Your task to perform on an android device: What's on my calendar tomorrow? Image 0: 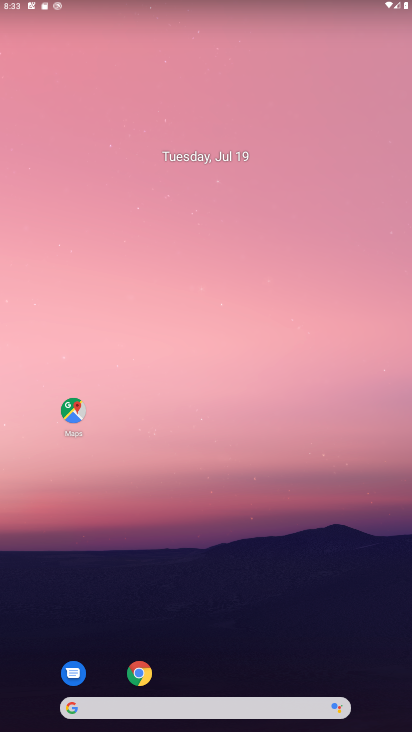
Step 0: drag from (393, 658) to (335, 89)
Your task to perform on an android device: What's on my calendar tomorrow? Image 1: 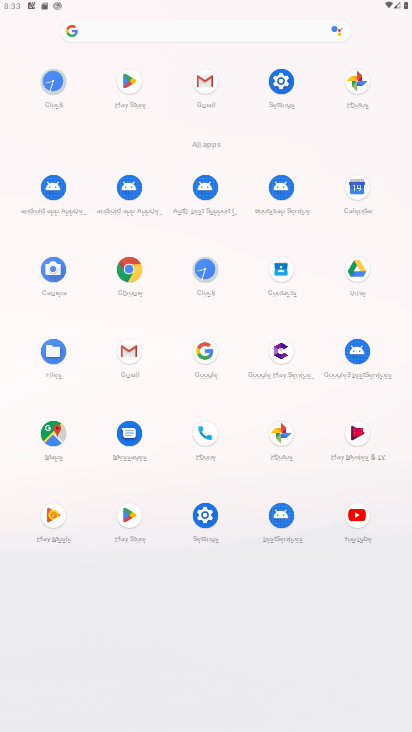
Step 1: click (356, 187)
Your task to perform on an android device: What's on my calendar tomorrow? Image 2: 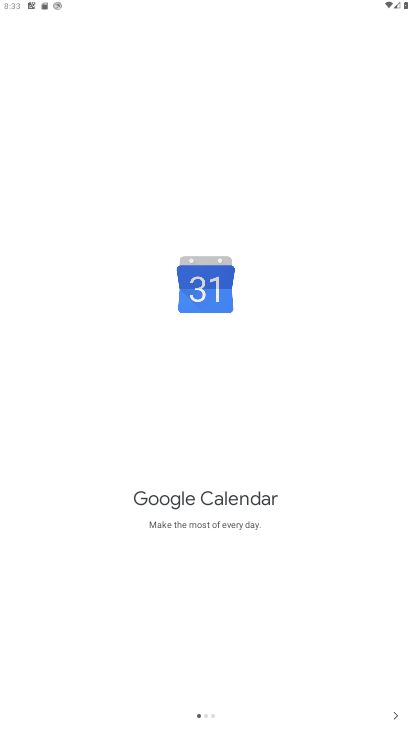
Step 2: click (394, 717)
Your task to perform on an android device: What's on my calendar tomorrow? Image 3: 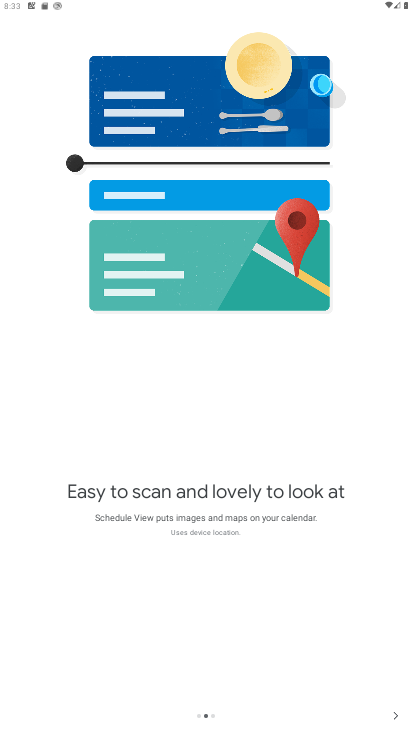
Step 3: click (394, 717)
Your task to perform on an android device: What's on my calendar tomorrow? Image 4: 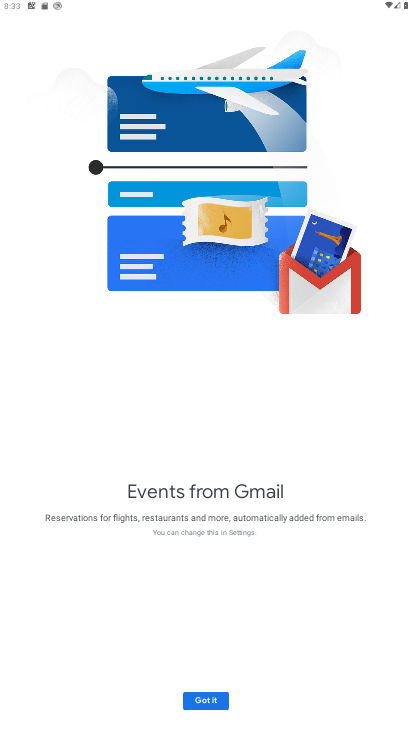
Step 4: click (201, 699)
Your task to perform on an android device: What's on my calendar tomorrow? Image 5: 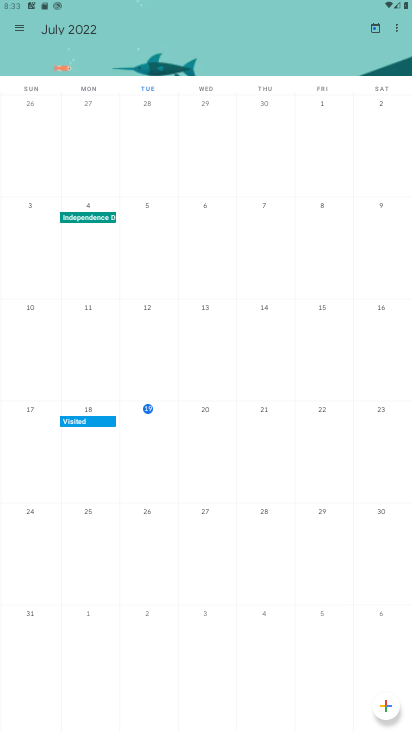
Step 5: click (19, 29)
Your task to perform on an android device: What's on my calendar tomorrow? Image 6: 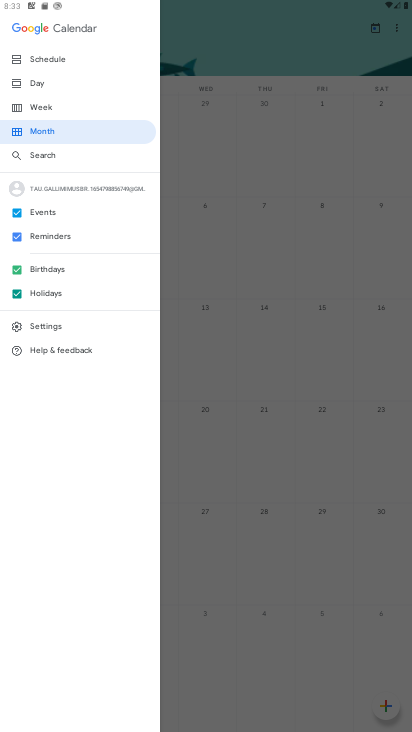
Step 6: click (39, 80)
Your task to perform on an android device: What's on my calendar tomorrow? Image 7: 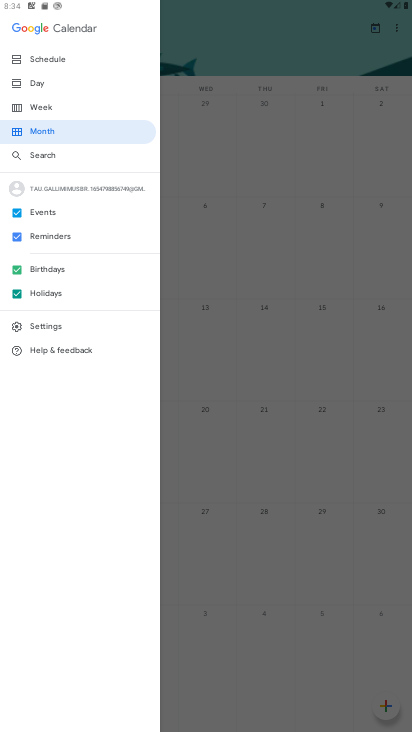
Step 7: click (39, 84)
Your task to perform on an android device: What's on my calendar tomorrow? Image 8: 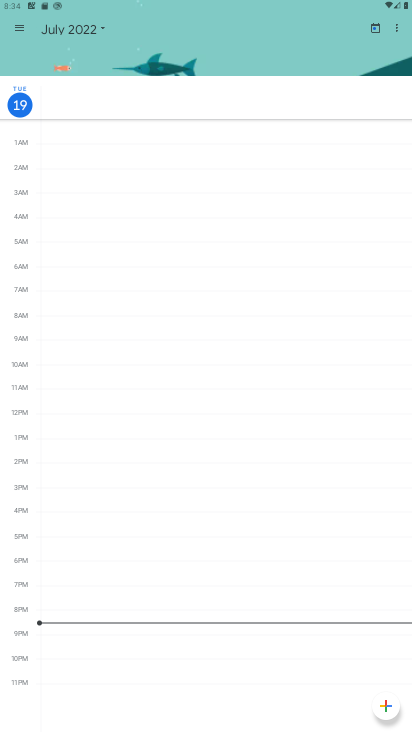
Step 8: click (98, 25)
Your task to perform on an android device: What's on my calendar tomorrow? Image 9: 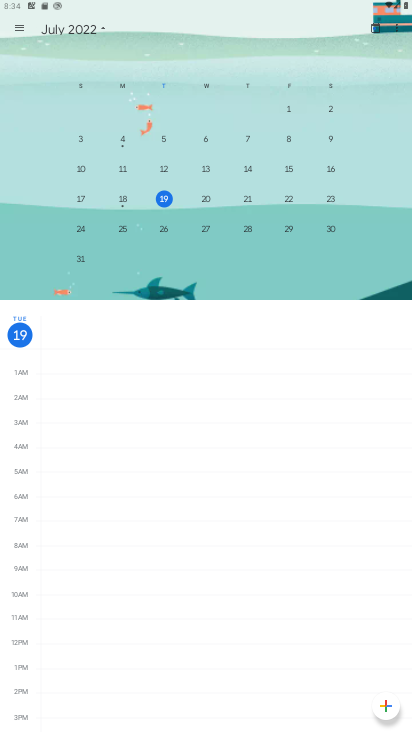
Step 9: click (209, 200)
Your task to perform on an android device: What's on my calendar tomorrow? Image 10: 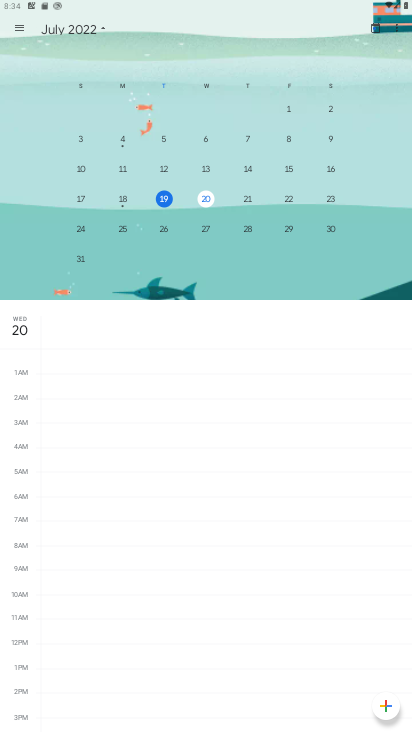
Step 10: task complete